Your task to perform on an android device: Add "razer kraken" to the cart on amazon Image 0: 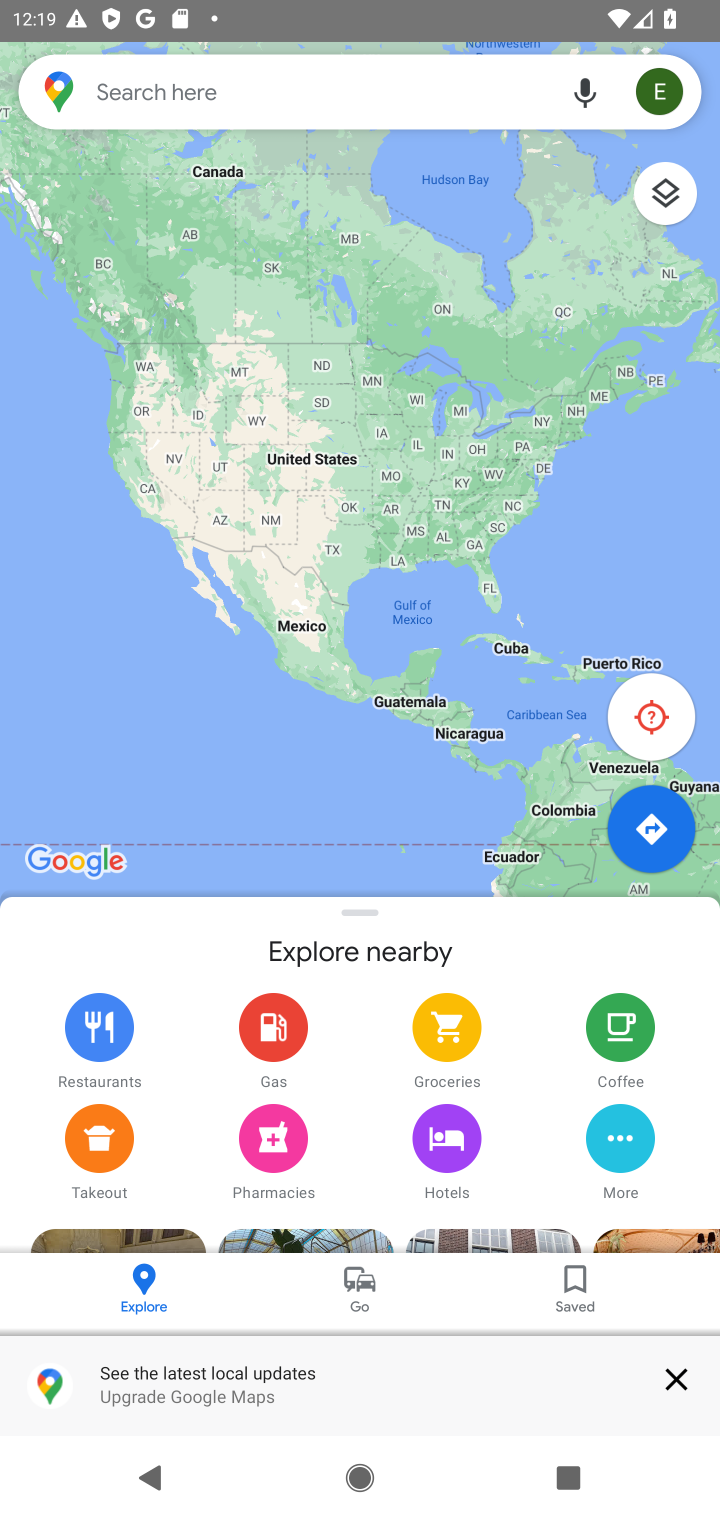
Step 0: press home button
Your task to perform on an android device: Add "razer kraken" to the cart on amazon Image 1: 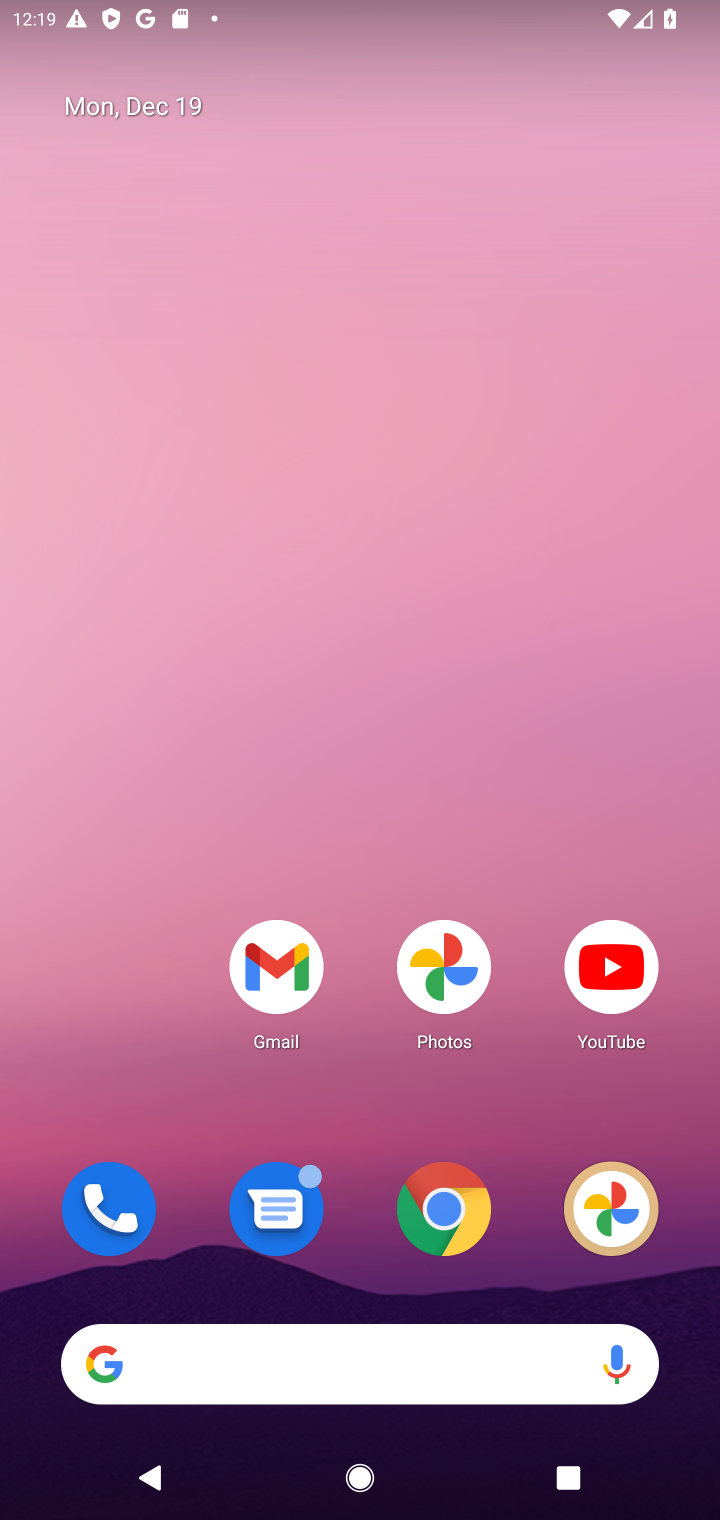
Step 1: click (425, 1220)
Your task to perform on an android device: Add "razer kraken" to the cart on amazon Image 2: 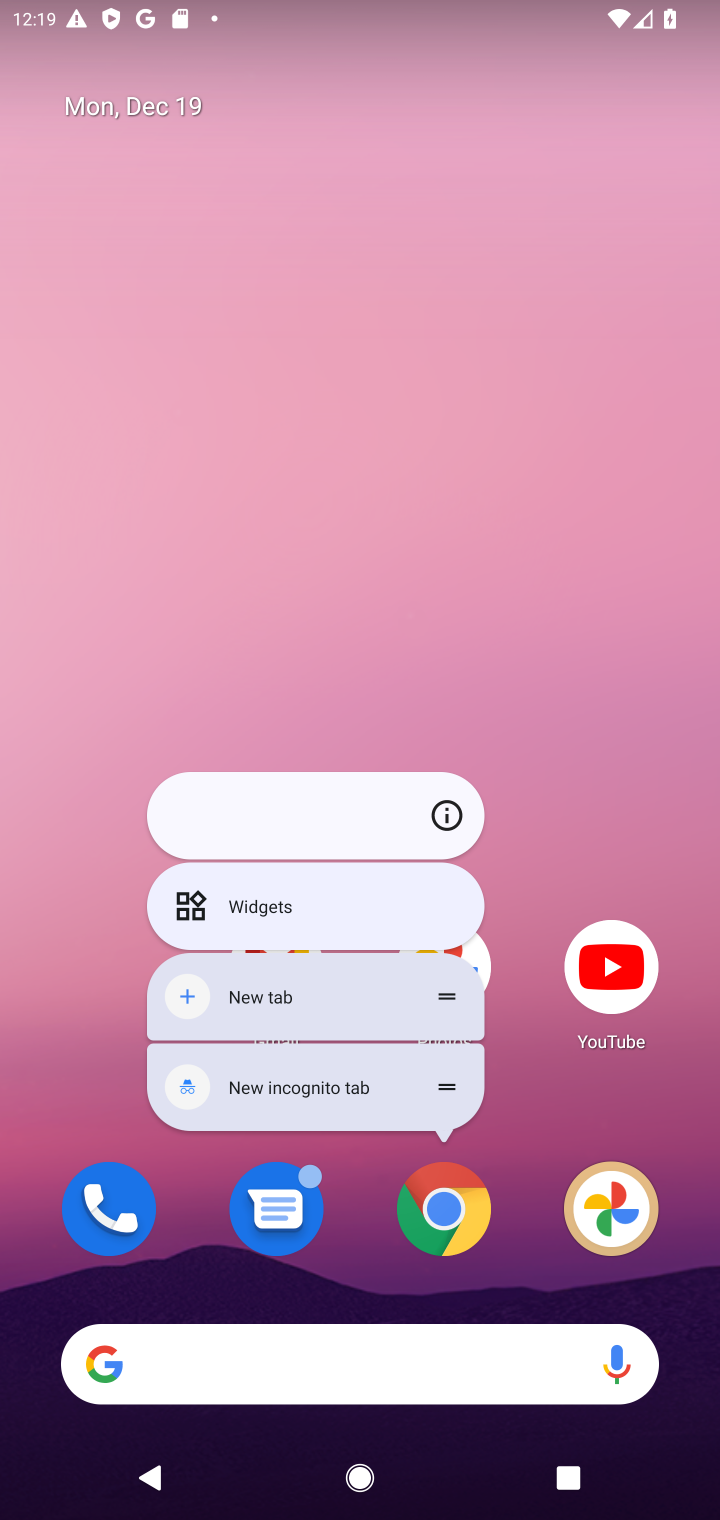
Step 2: click (444, 1193)
Your task to perform on an android device: Add "razer kraken" to the cart on amazon Image 3: 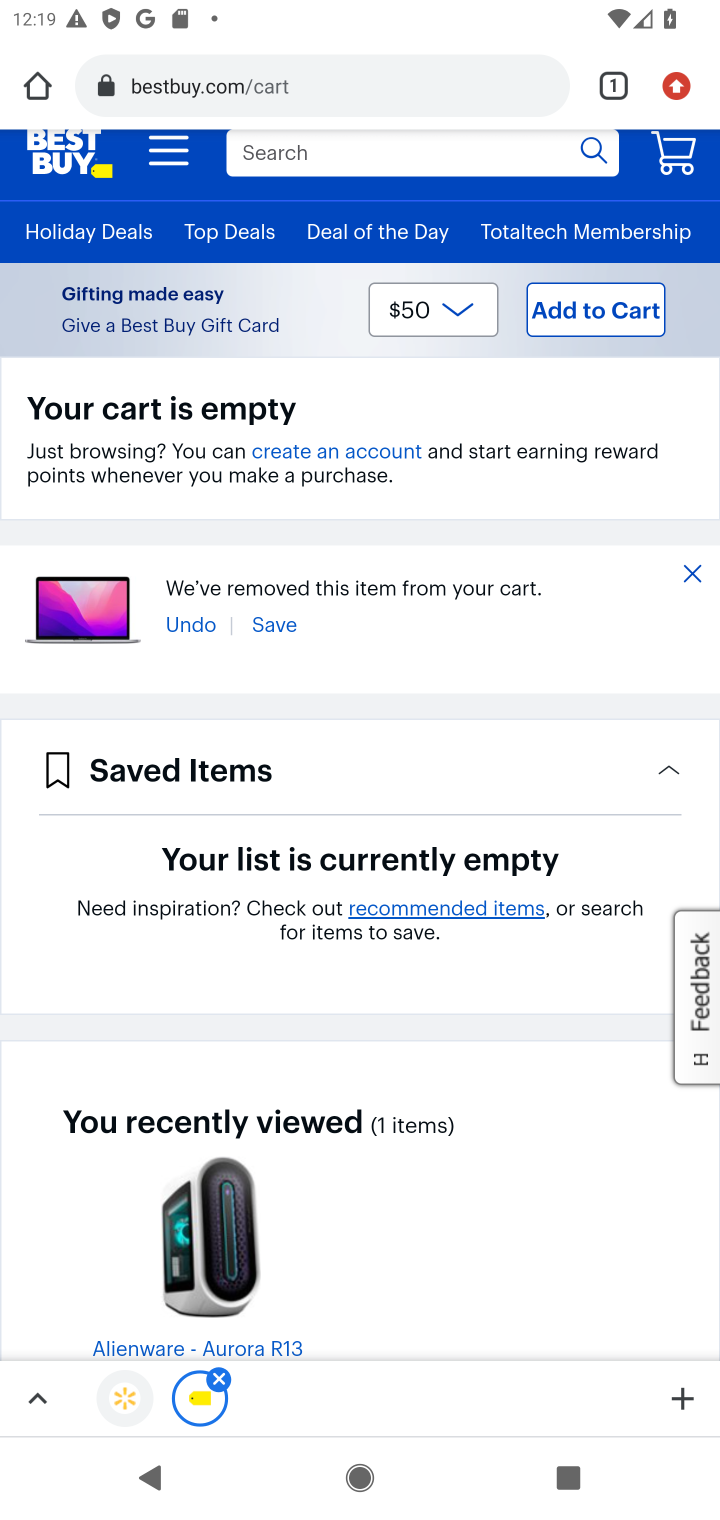
Step 3: click (431, 82)
Your task to perform on an android device: Add "razer kraken" to the cart on amazon Image 4: 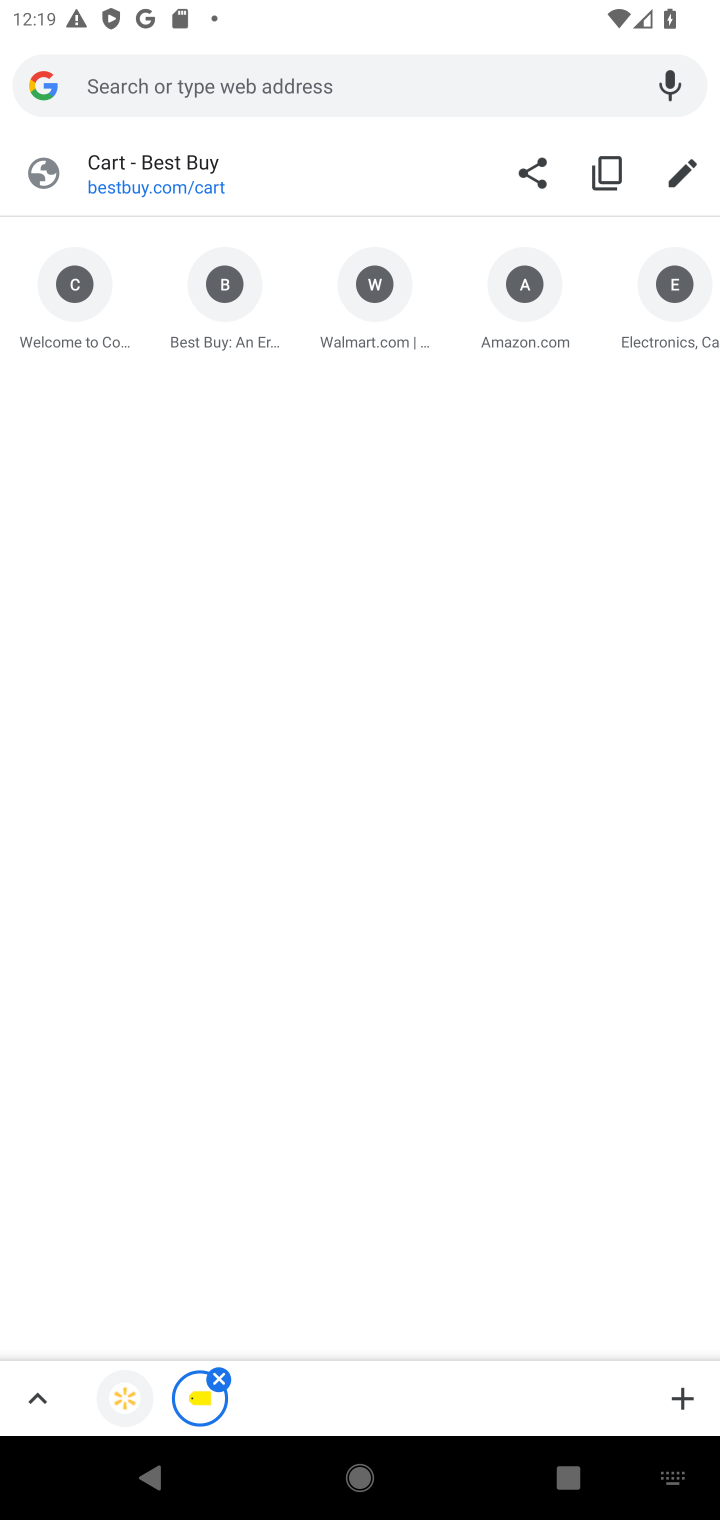
Step 4: click (531, 288)
Your task to perform on an android device: Add "razer kraken" to the cart on amazon Image 5: 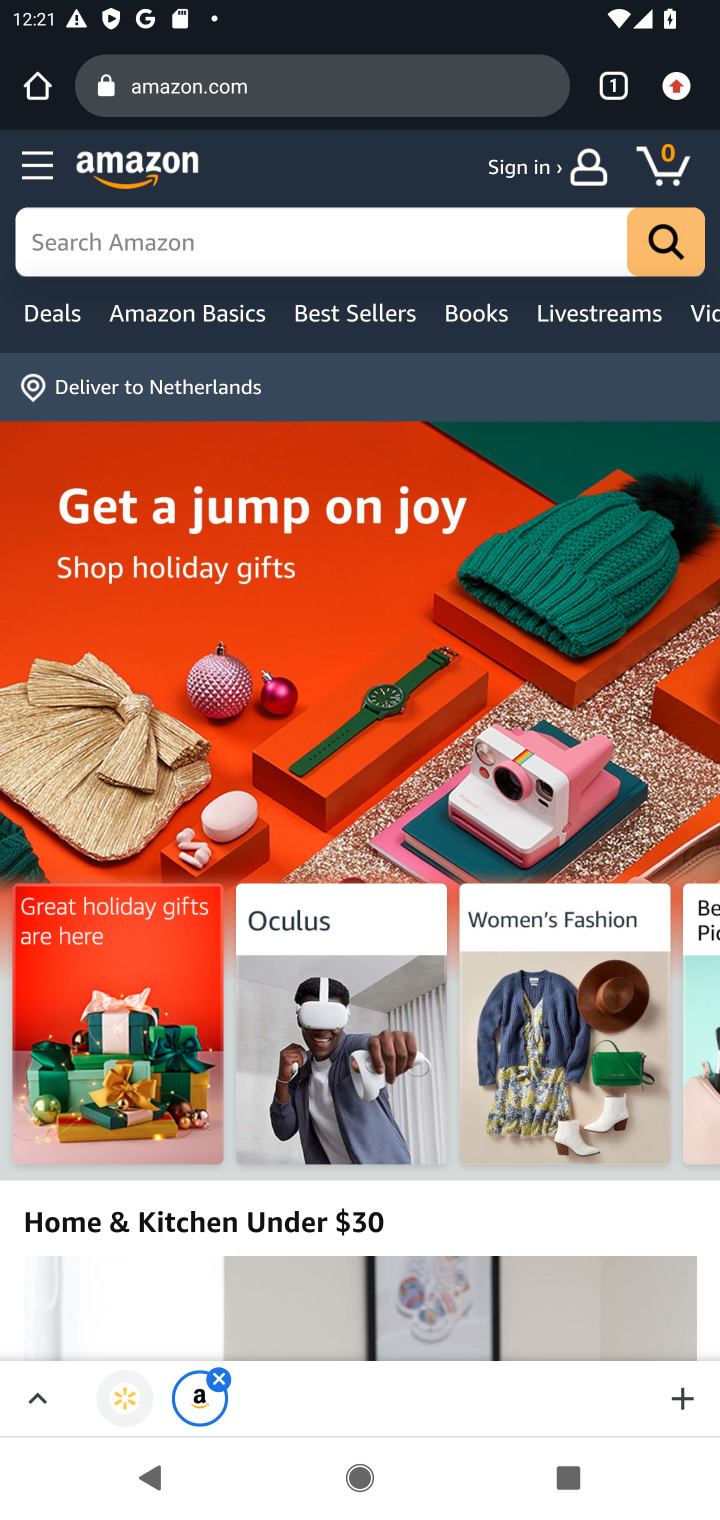
Step 5: click (322, 238)
Your task to perform on an android device: Add "razer kraken" to the cart on amazon Image 6: 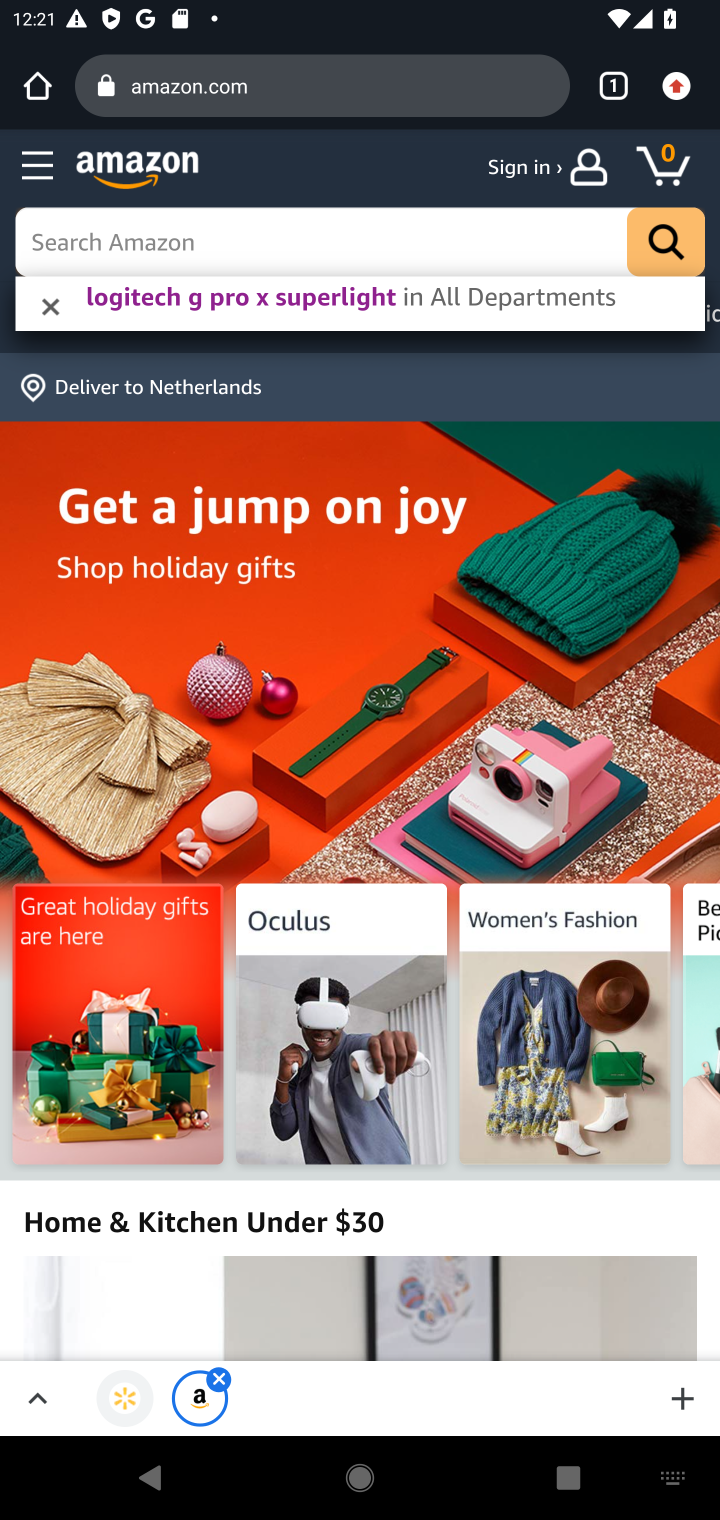
Step 6: type "razer kraken"
Your task to perform on an android device: Add "razer kraken" to the cart on amazon Image 7: 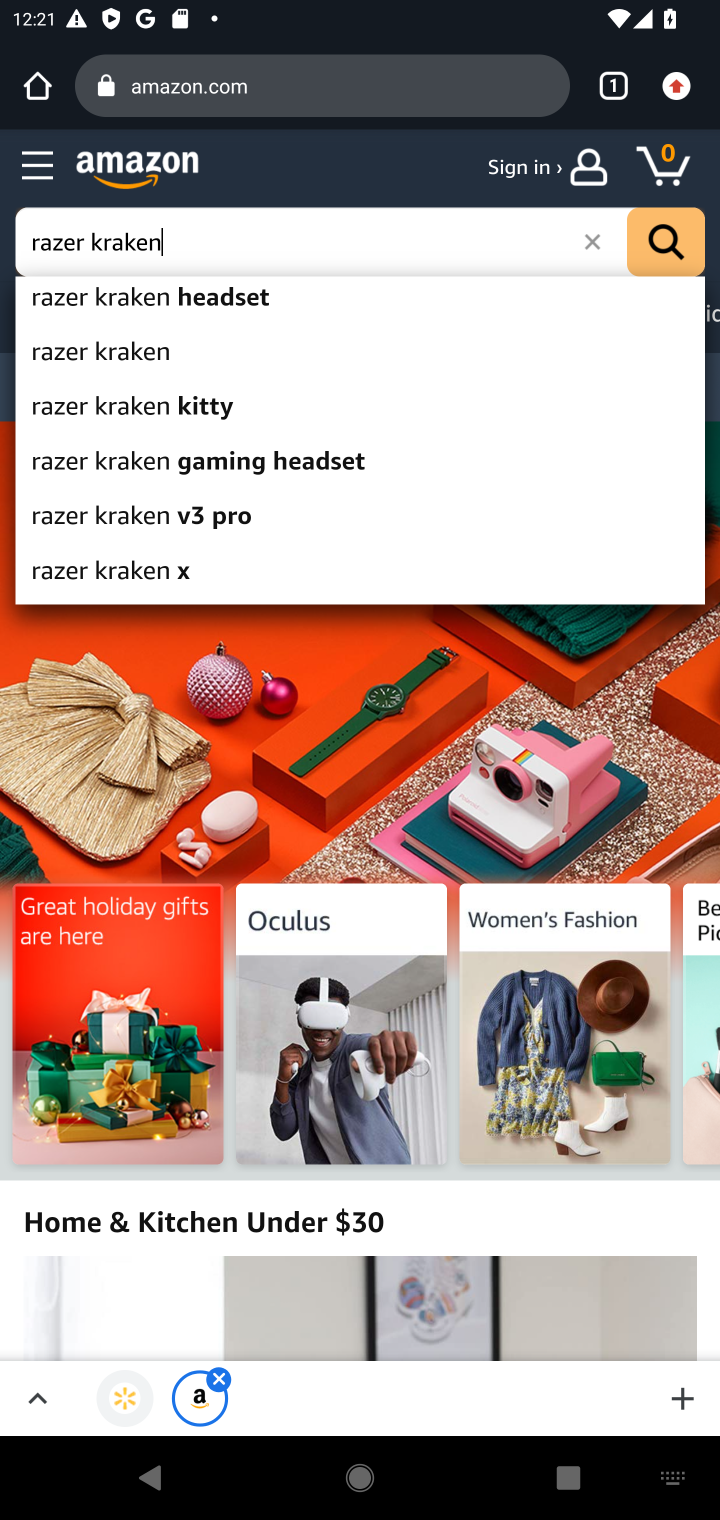
Step 7: click (153, 350)
Your task to perform on an android device: Add "razer kraken" to the cart on amazon Image 8: 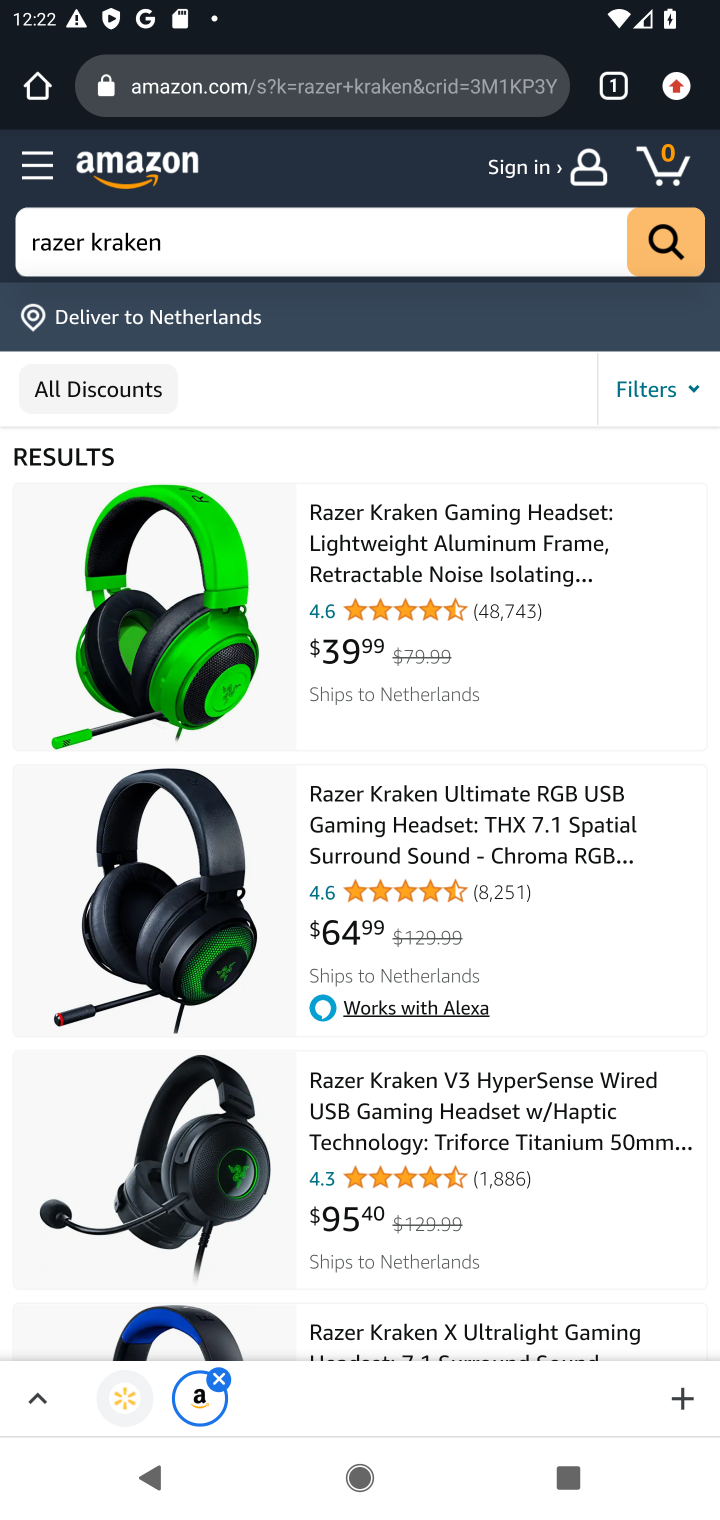
Step 8: click (433, 549)
Your task to perform on an android device: Add "razer kraken" to the cart on amazon Image 9: 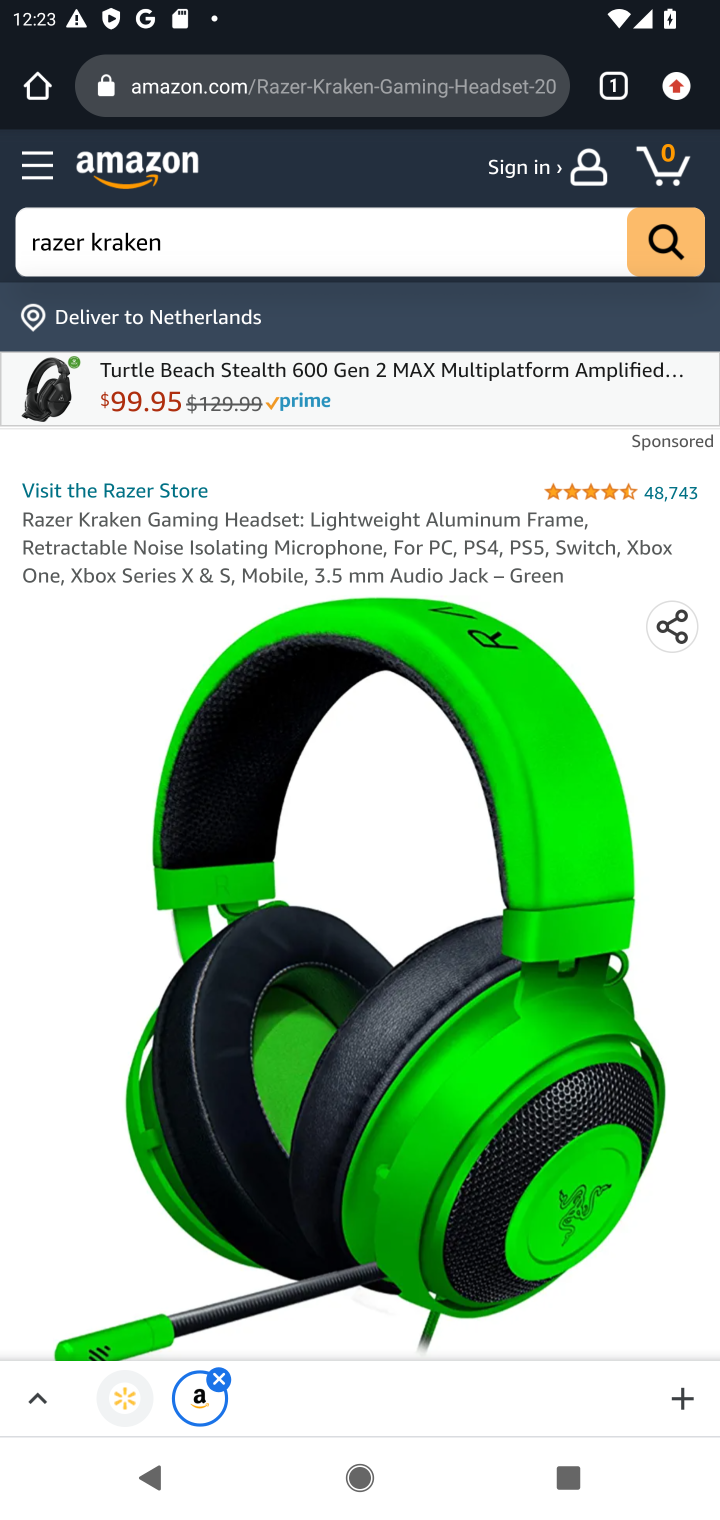
Step 9: drag from (447, 936) to (396, 503)
Your task to perform on an android device: Add "razer kraken" to the cart on amazon Image 10: 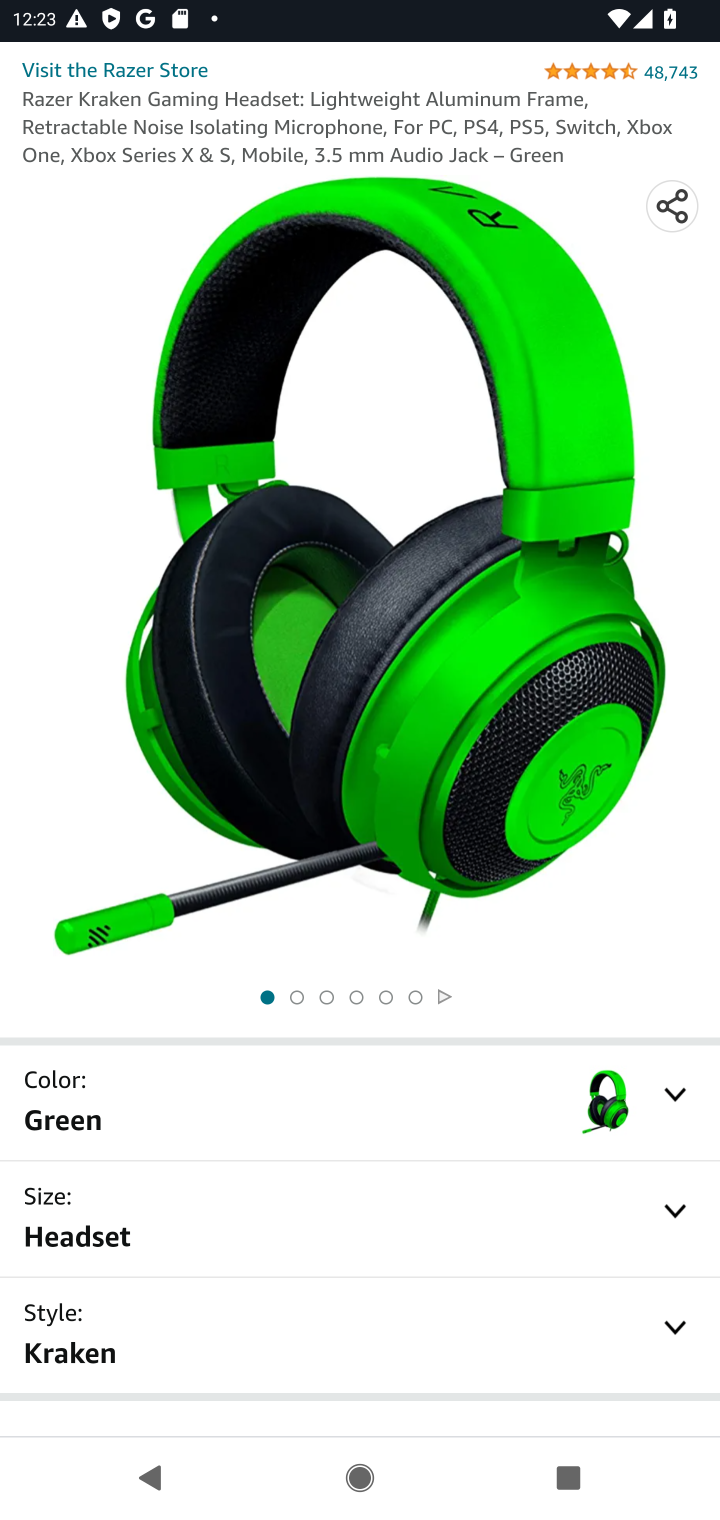
Step 10: drag from (436, 1169) to (404, 374)
Your task to perform on an android device: Add "razer kraken" to the cart on amazon Image 11: 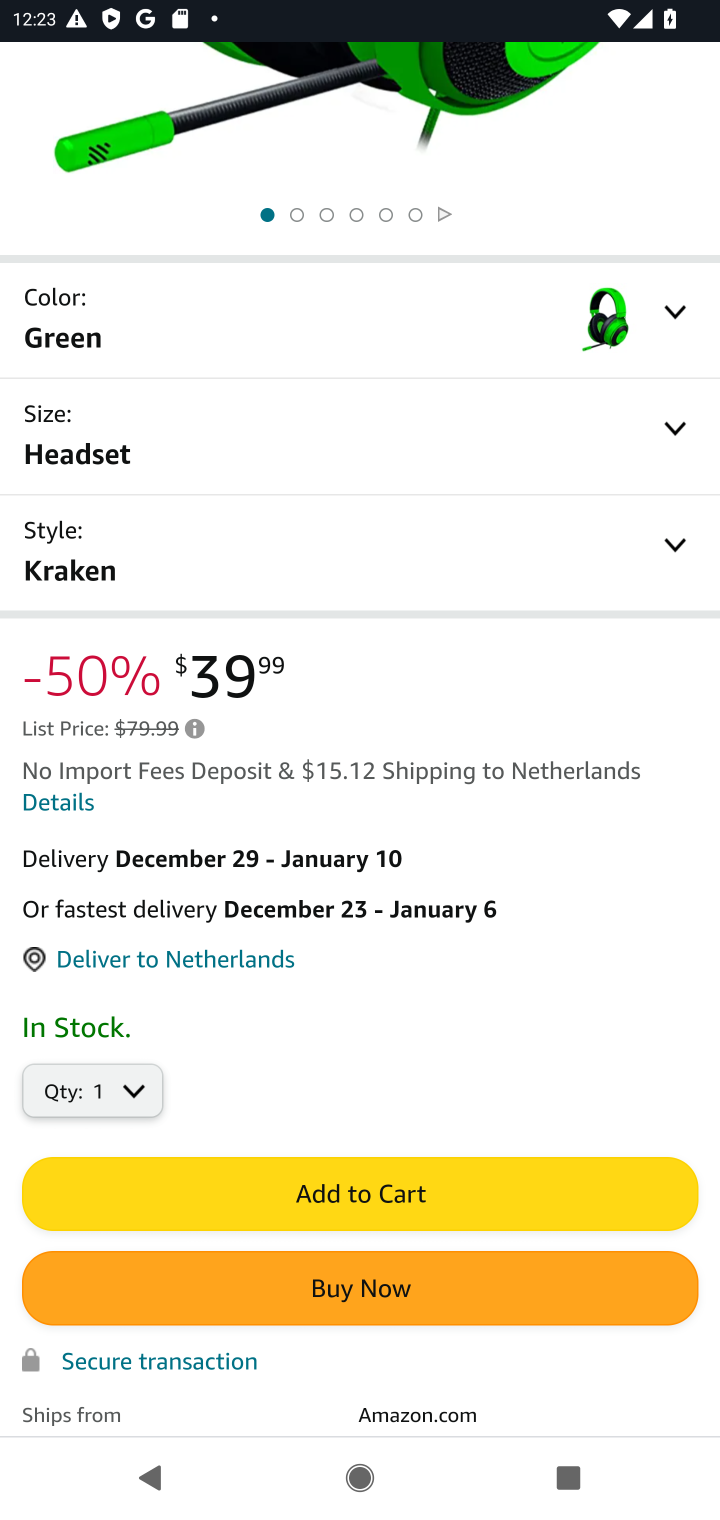
Step 11: click (361, 1178)
Your task to perform on an android device: Add "razer kraken" to the cart on amazon Image 12: 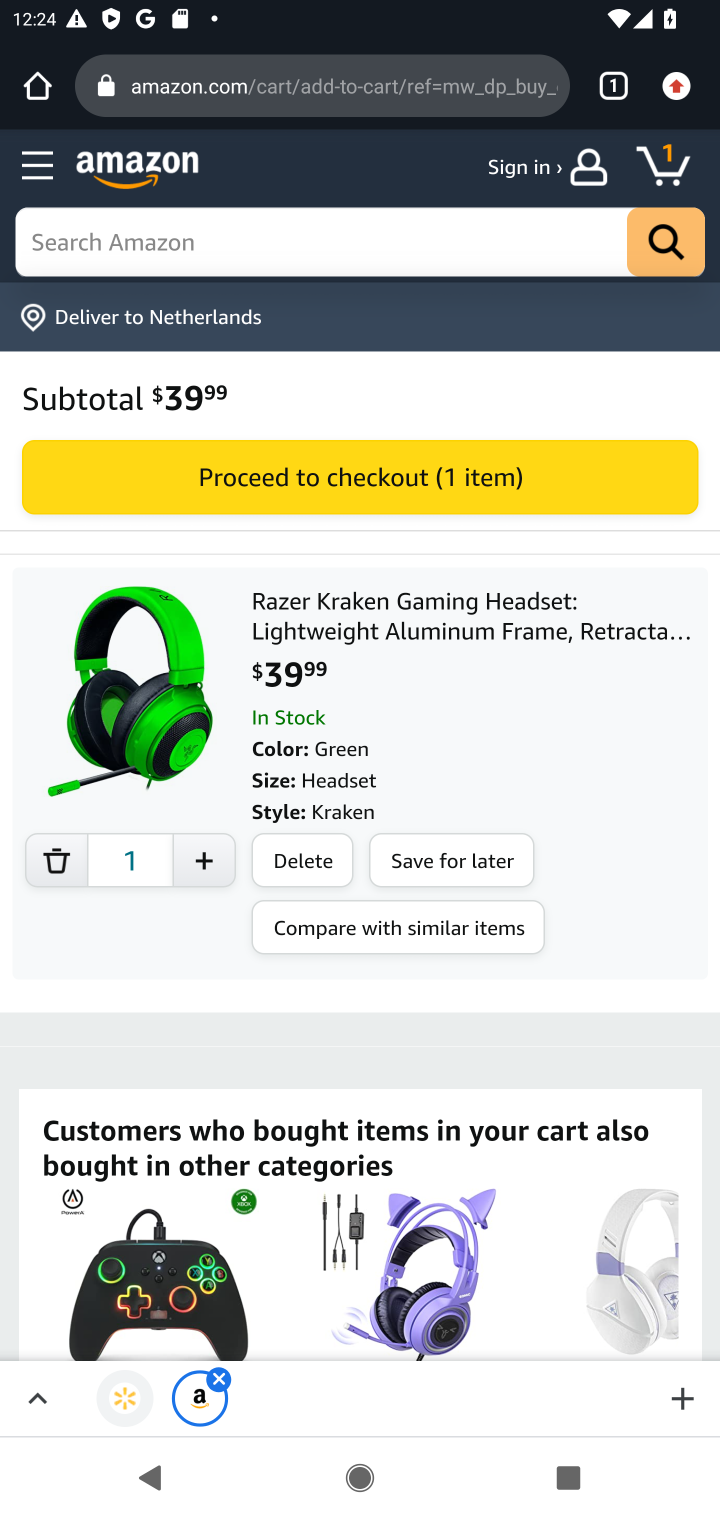
Step 12: task complete